Your task to perform on an android device: toggle data saver in the chrome app Image 0: 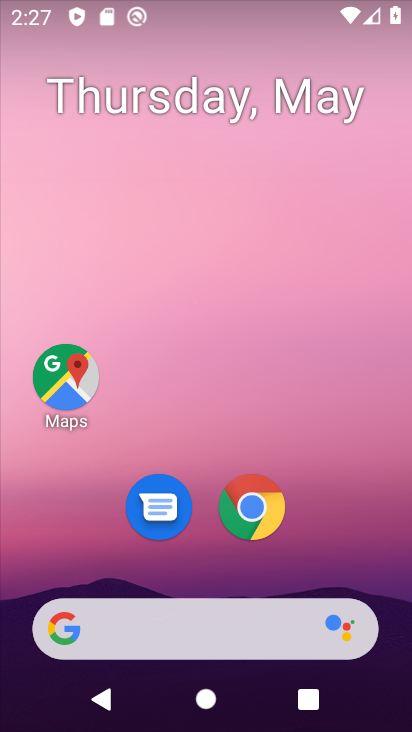
Step 0: click (249, 509)
Your task to perform on an android device: toggle data saver in the chrome app Image 1: 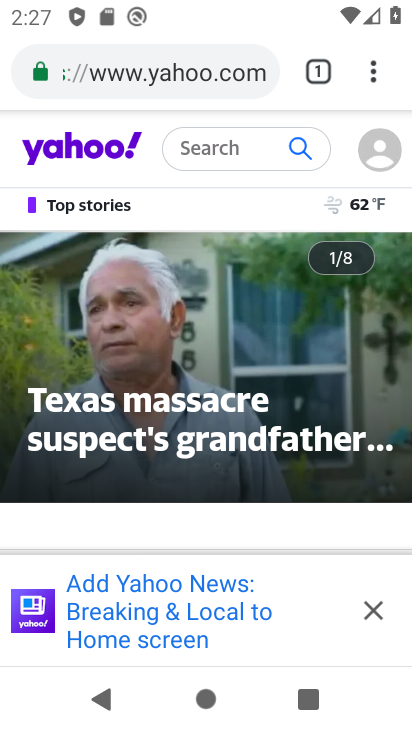
Step 1: click (370, 70)
Your task to perform on an android device: toggle data saver in the chrome app Image 2: 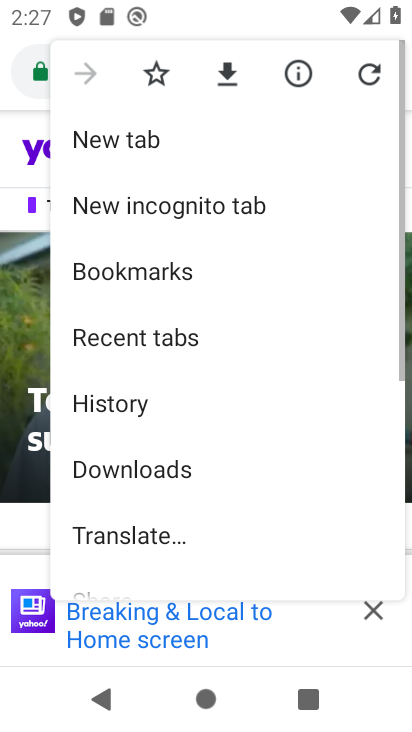
Step 2: drag from (167, 546) to (223, 249)
Your task to perform on an android device: toggle data saver in the chrome app Image 3: 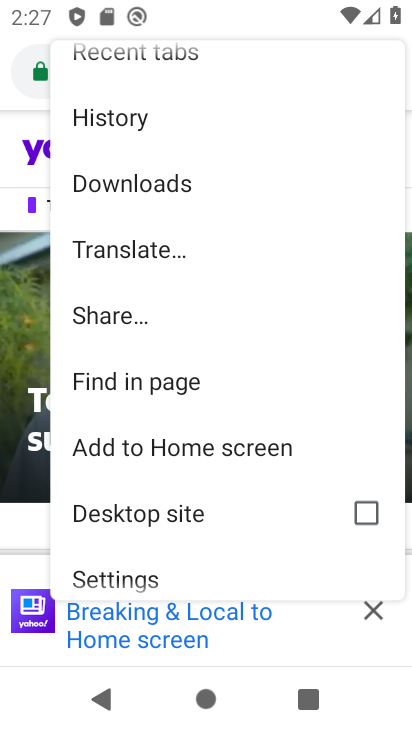
Step 3: click (122, 575)
Your task to perform on an android device: toggle data saver in the chrome app Image 4: 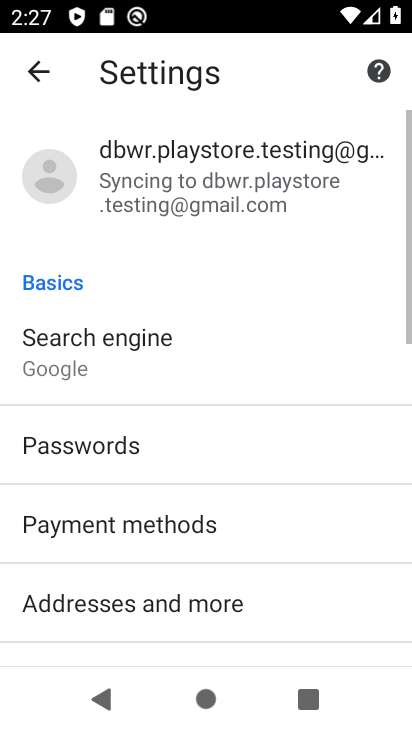
Step 4: drag from (90, 517) to (167, 247)
Your task to perform on an android device: toggle data saver in the chrome app Image 5: 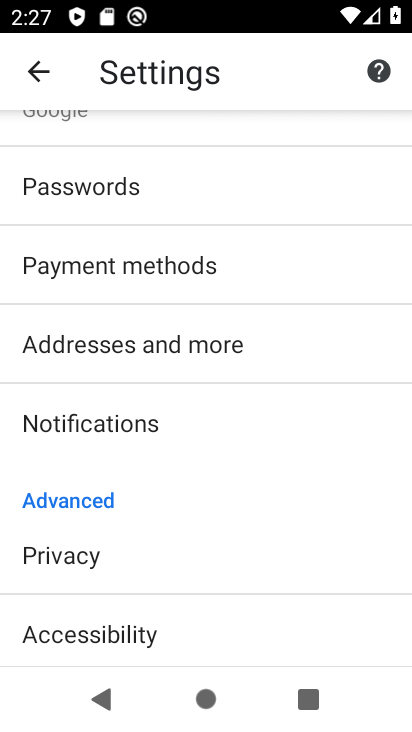
Step 5: drag from (177, 549) to (265, 164)
Your task to perform on an android device: toggle data saver in the chrome app Image 6: 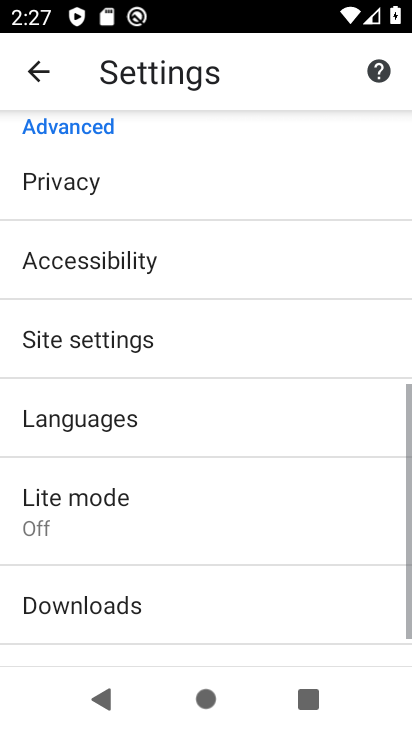
Step 6: click (135, 345)
Your task to perform on an android device: toggle data saver in the chrome app Image 7: 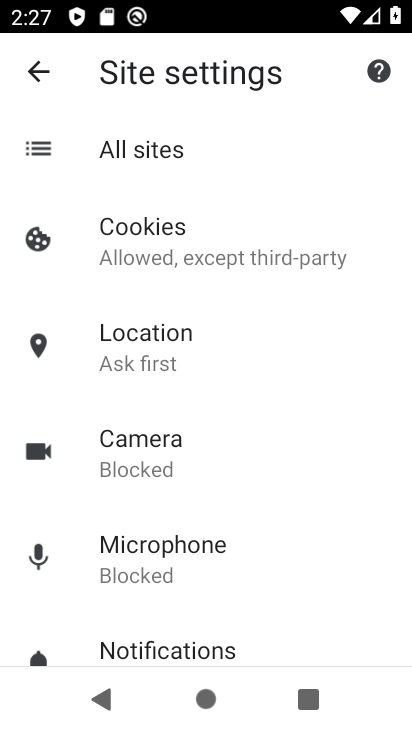
Step 7: drag from (151, 535) to (188, 326)
Your task to perform on an android device: toggle data saver in the chrome app Image 8: 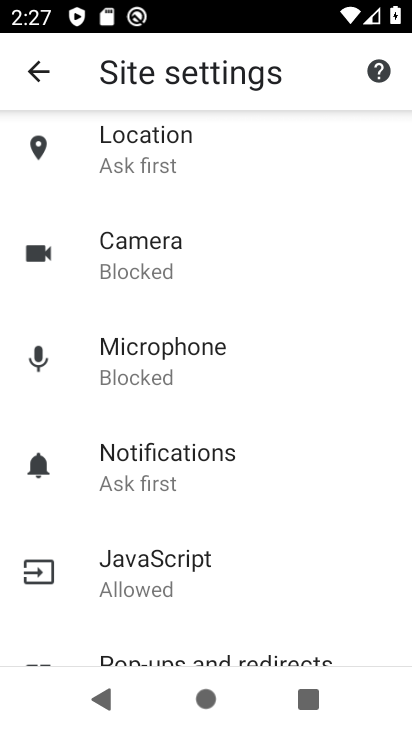
Step 8: drag from (184, 527) to (189, 205)
Your task to perform on an android device: toggle data saver in the chrome app Image 9: 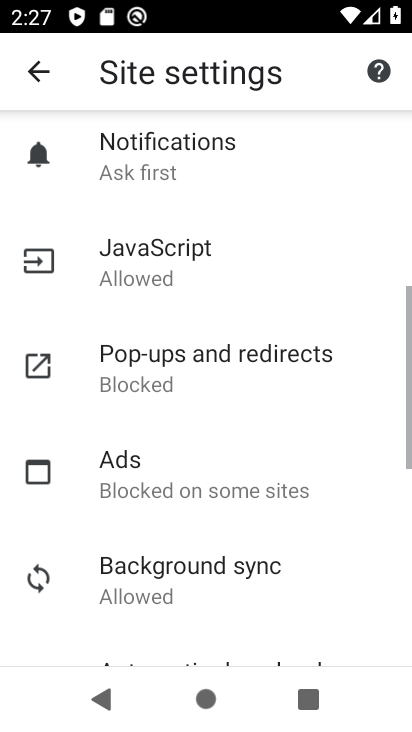
Step 9: click (28, 61)
Your task to perform on an android device: toggle data saver in the chrome app Image 10: 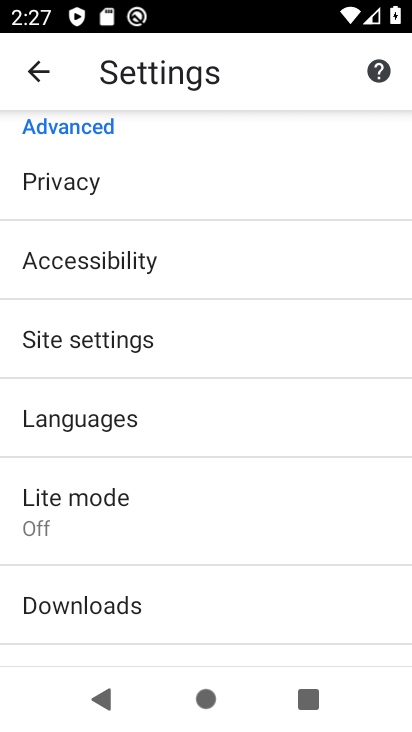
Step 10: click (107, 513)
Your task to perform on an android device: toggle data saver in the chrome app Image 11: 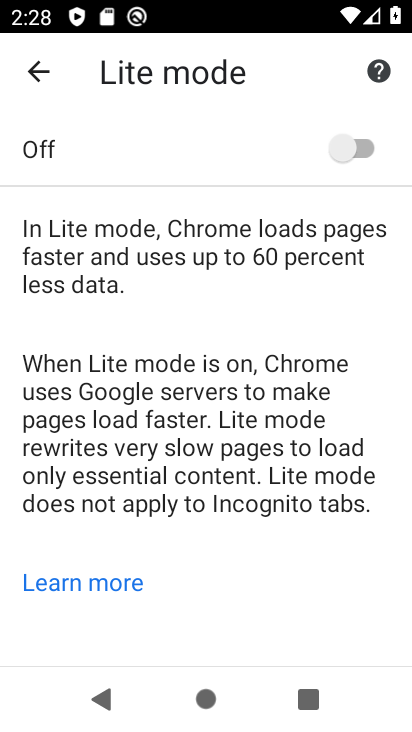
Step 11: click (355, 147)
Your task to perform on an android device: toggle data saver in the chrome app Image 12: 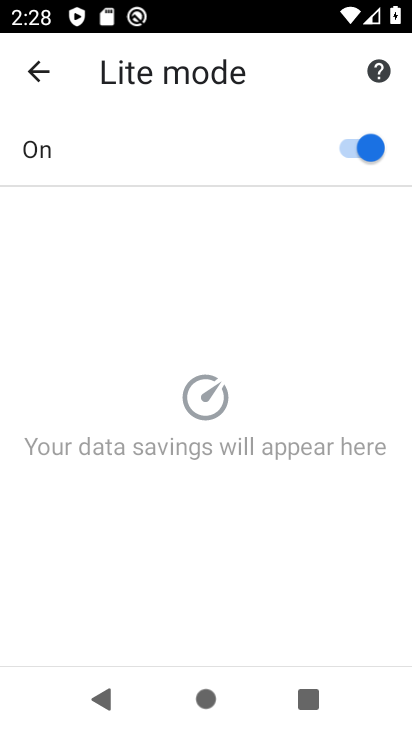
Step 12: task complete